Your task to perform on an android device: Go to calendar. Show me events next week Image 0: 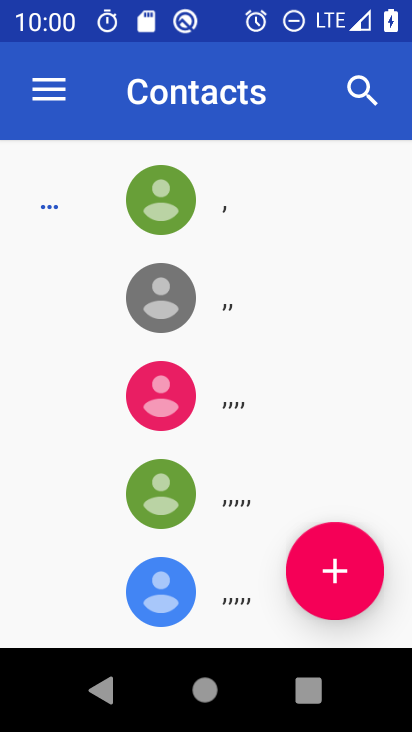
Step 0: drag from (219, 554) to (298, 160)
Your task to perform on an android device: Go to calendar. Show me events next week Image 1: 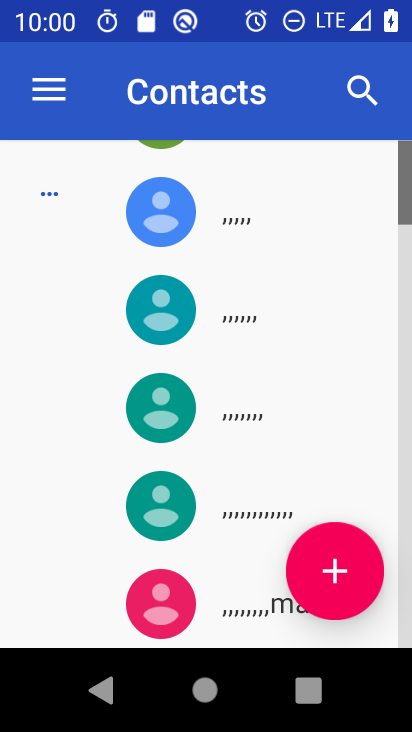
Step 1: press home button
Your task to perform on an android device: Go to calendar. Show me events next week Image 2: 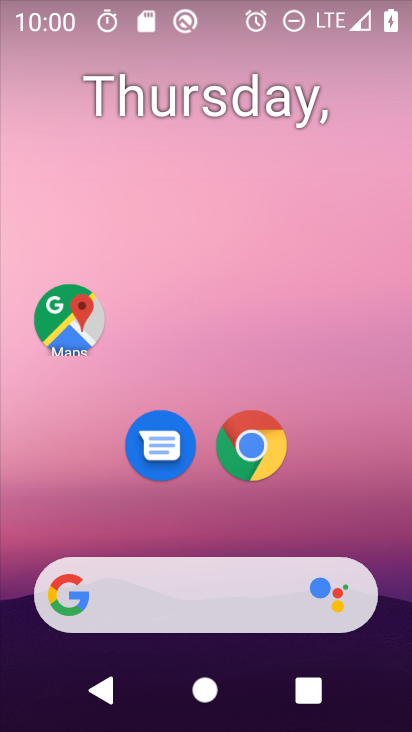
Step 2: drag from (159, 571) to (268, 174)
Your task to perform on an android device: Go to calendar. Show me events next week Image 3: 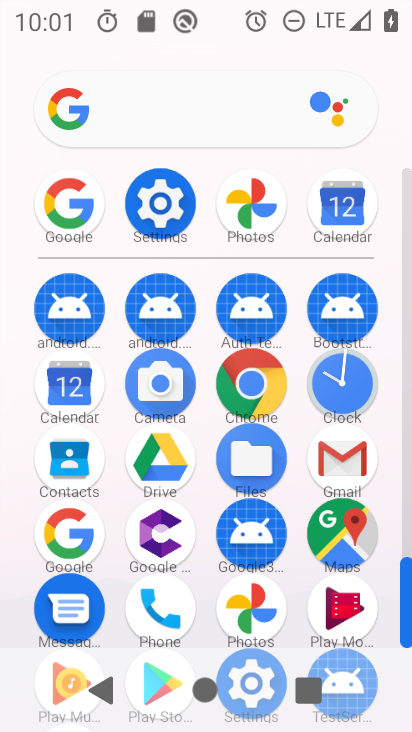
Step 3: click (75, 383)
Your task to perform on an android device: Go to calendar. Show me events next week Image 4: 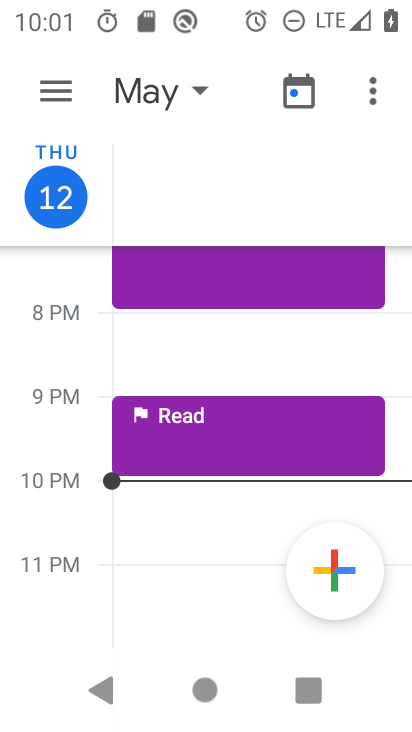
Step 4: click (181, 108)
Your task to perform on an android device: Go to calendar. Show me events next week Image 5: 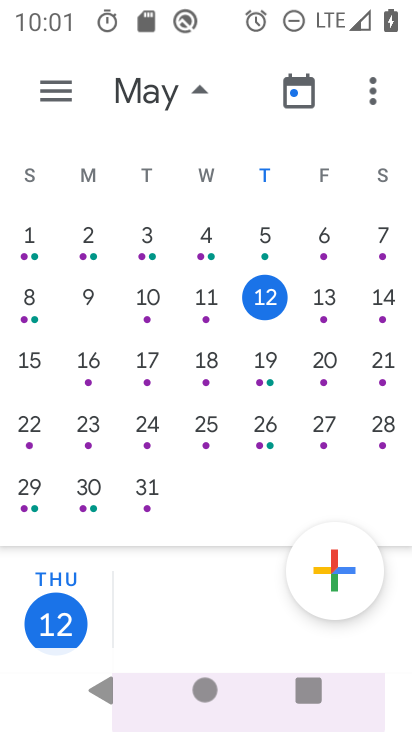
Step 5: click (261, 371)
Your task to perform on an android device: Go to calendar. Show me events next week Image 6: 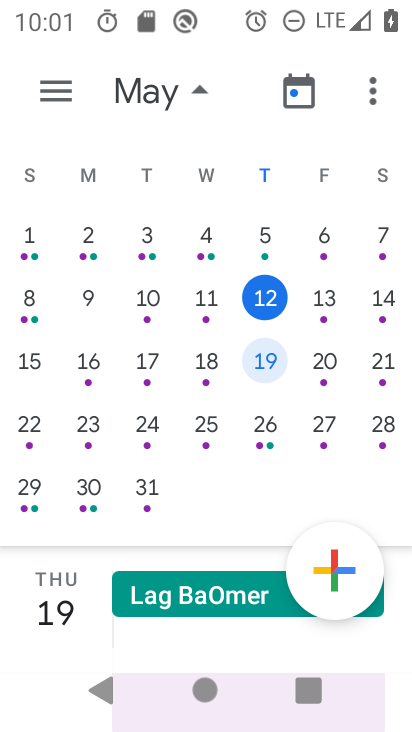
Step 6: task complete